Your task to perform on an android device: add a label to a message in the gmail app Image 0: 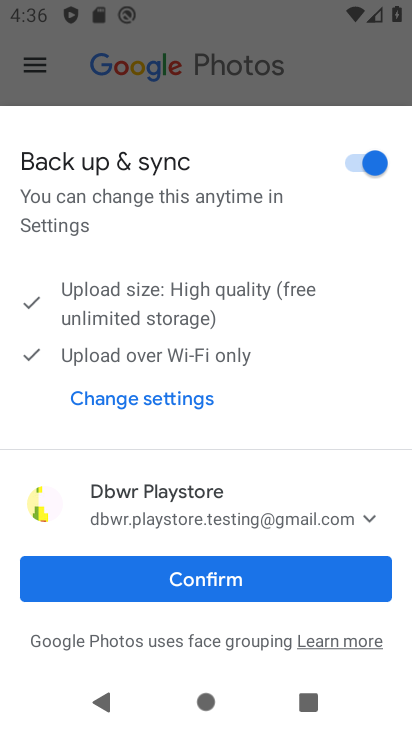
Step 0: press home button
Your task to perform on an android device: add a label to a message in the gmail app Image 1: 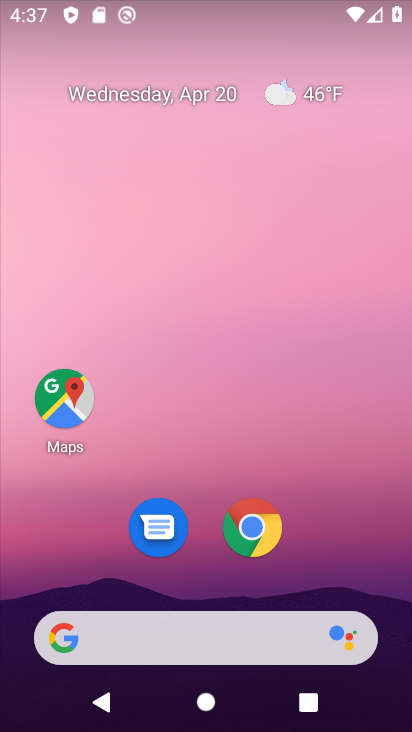
Step 1: drag from (119, 482) to (120, 238)
Your task to perform on an android device: add a label to a message in the gmail app Image 2: 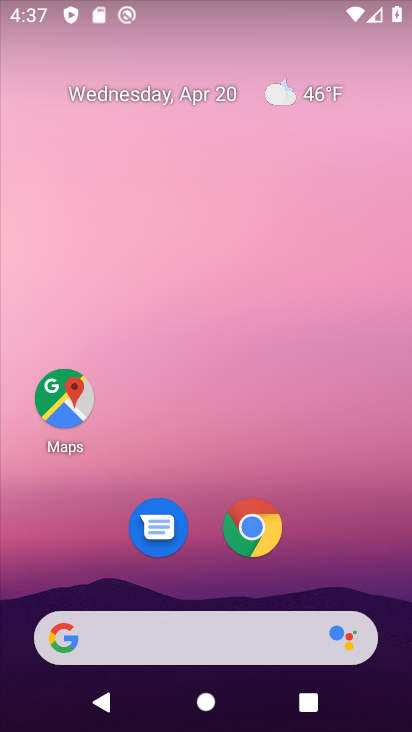
Step 2: drag from (82, 514) to (52, 236)
Your task to perform on an android device: add a label to a message in the gmail app Image 3: 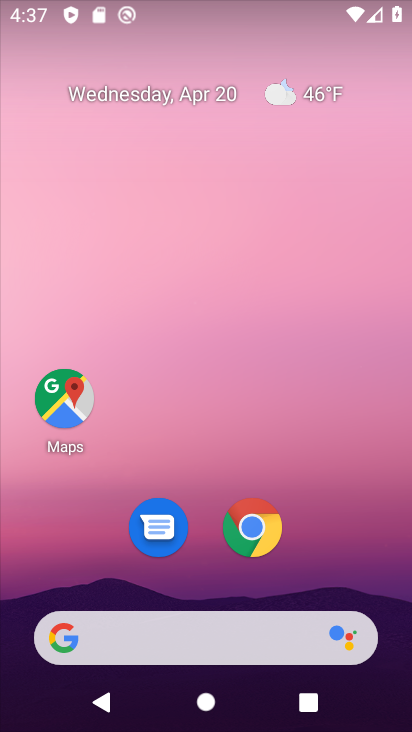
Step 3: drag from (65, 506) to (158, 172)
Your task to perform on an android device: add a label to a message in the gmail app Image 4: 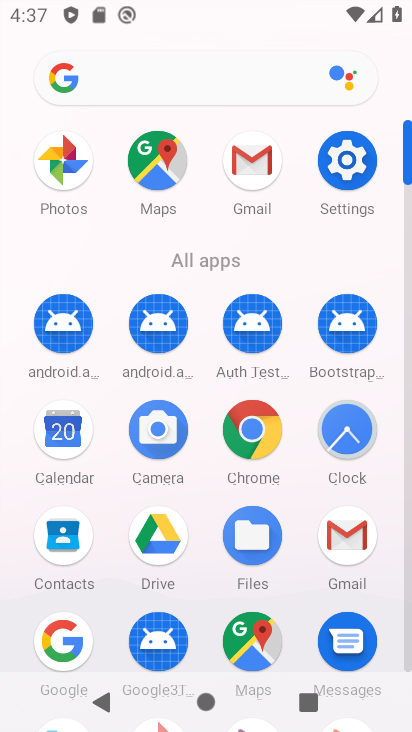
Step 4: click (239, 186)
Your task to perform on an android device: add a label to a message in the gmail app Image 5: 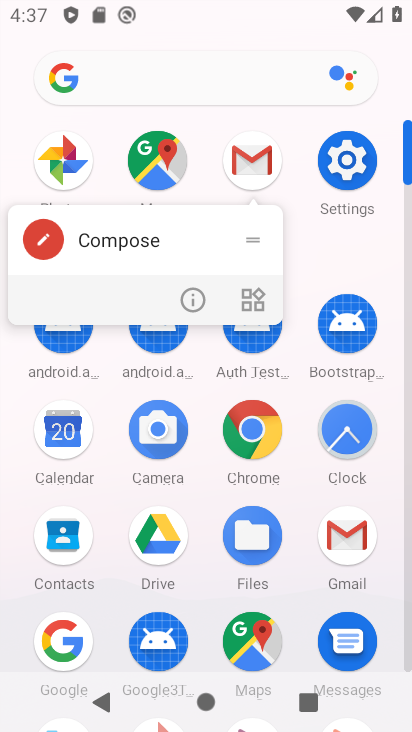
Step 5: click (249, 165)
Your task to perform on an android device: add a label to a message in the gmail app Image 6: 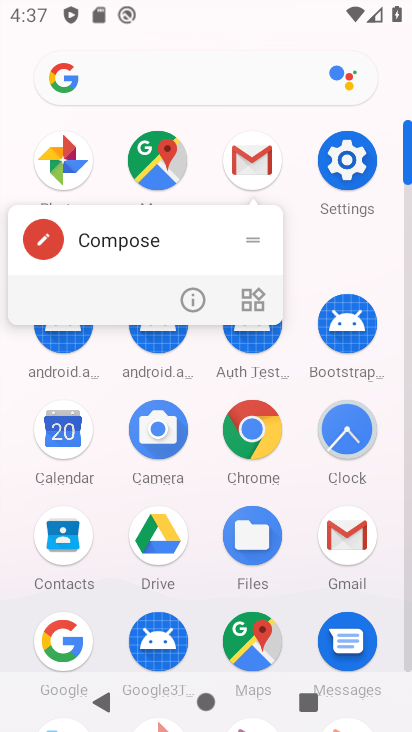
Step 6: click (249, 165)
Your task to perform on an android device: add a label to a message in the gmail app Image 7: 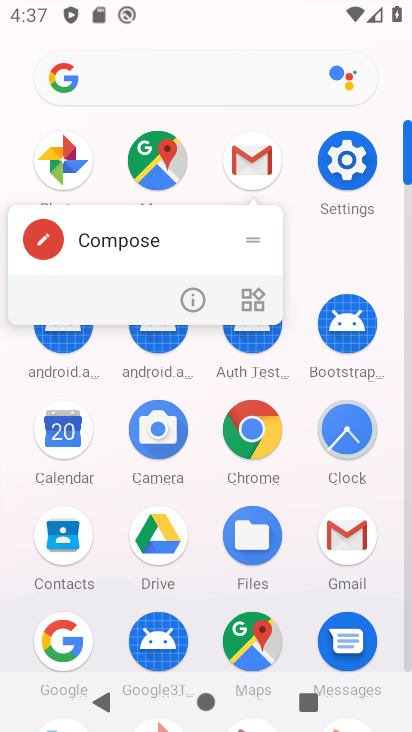
Step 7: click (249, 165)
Your task to perform on an android device: add a label to a message in the gmail app Image 8: 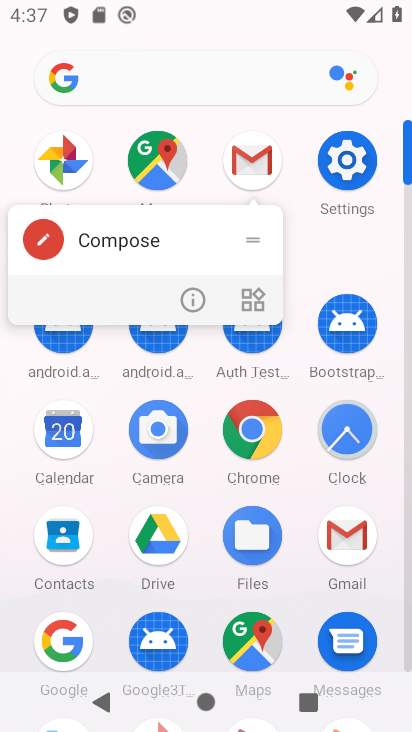
Step 8: click (192, 301)
Your task to perform on an android device: add a label to a message in the gmail app Image 9: 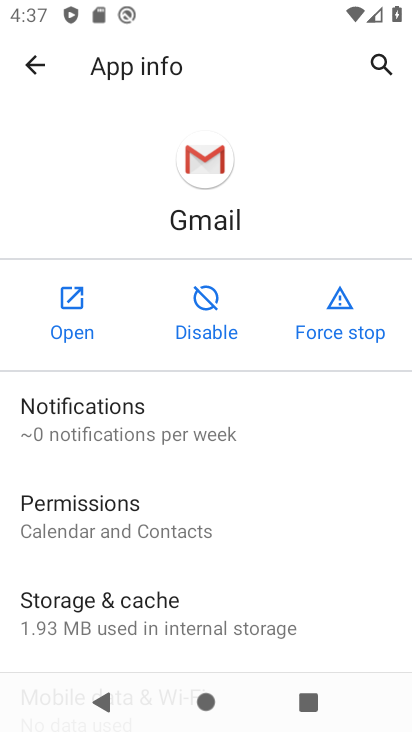
Step 9: click (76, 318)
Your task to perform on an android device: add a label to a message in the gmail app Image 10: 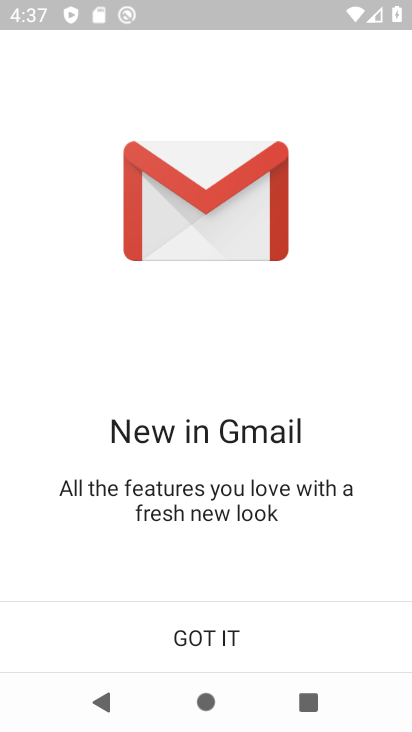
Step 10: click (213, 636)
Your task to perform on an android device: add a label to a message in the gmail app Image 11: 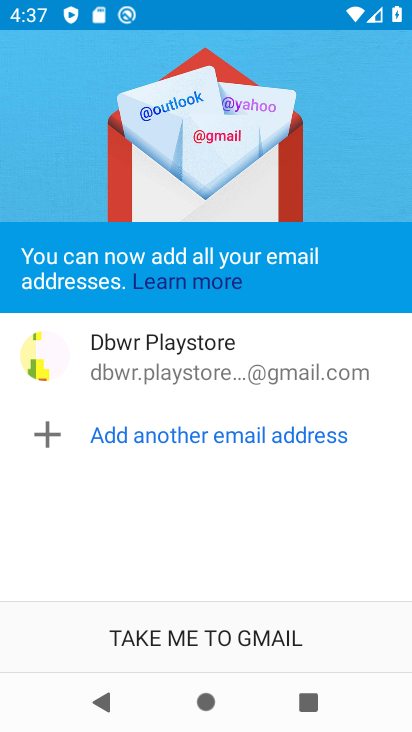
Step 11: click (187, 645)
Your task to perform on an android device: add a label to a message in the gmail app Image 12: 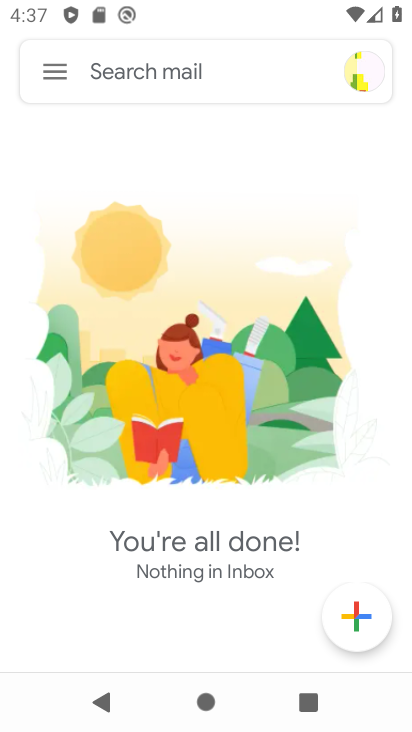
Step 12: task complete